Your task to perform on an android device: change notifications settings Image 0: 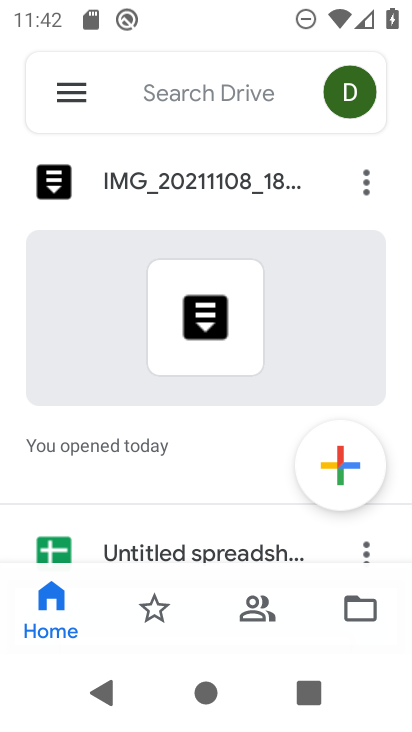
Step 0: press home button
Your task to perform on an android device: change notifications settings Image 1: 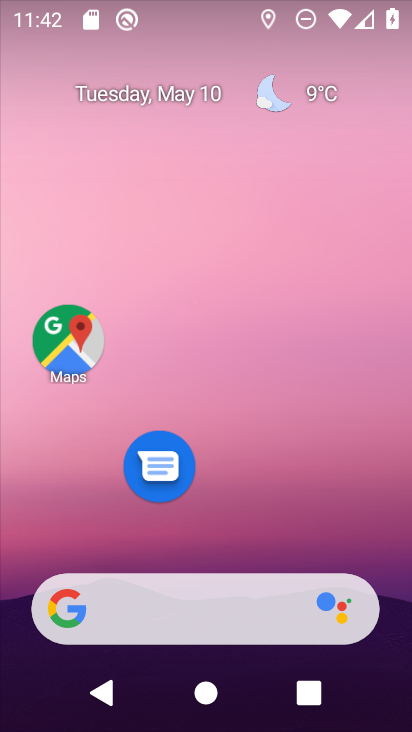
Step 1: drag from (250, 512) to (360, 74)
Your task to perform on an android device: change notifications settings Image 2: 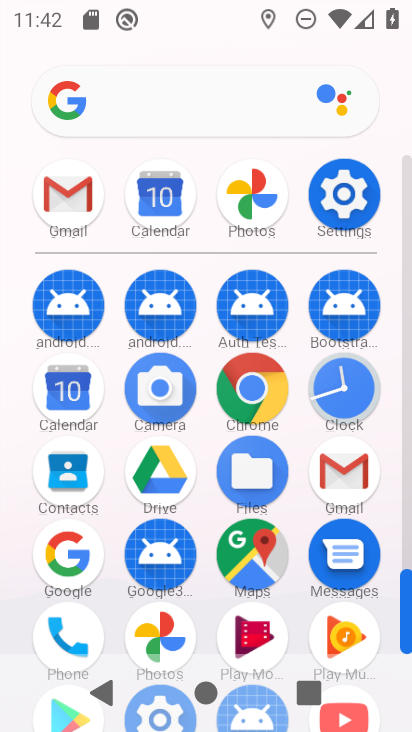
Step 2: click (354, 202)
Your task to perform on an android device: change notifications settings Image 3: 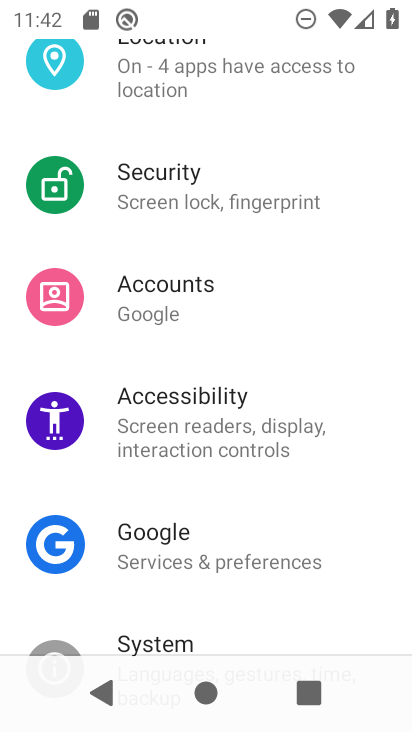
Step 3: drag from (253, 306) to (230, 450)
Your task to perform on an android device: change notifications settings Image 4: 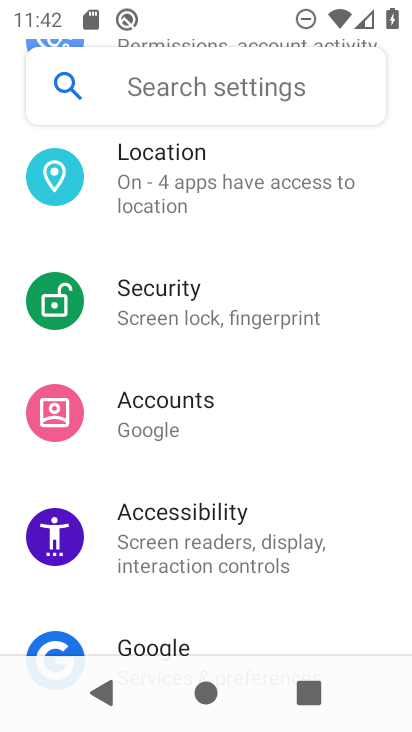
Step 4: drag from (197, 324) to (208, 406)
Your task to perform on an android device: change notifications settings Image 5: 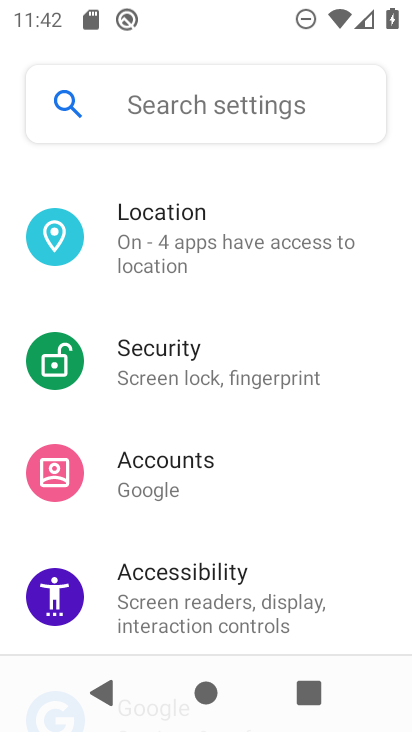
Step 5: drag from (194, 300) to (191, 392)
Your task to perform on an android device: change notifications settings Image 6: 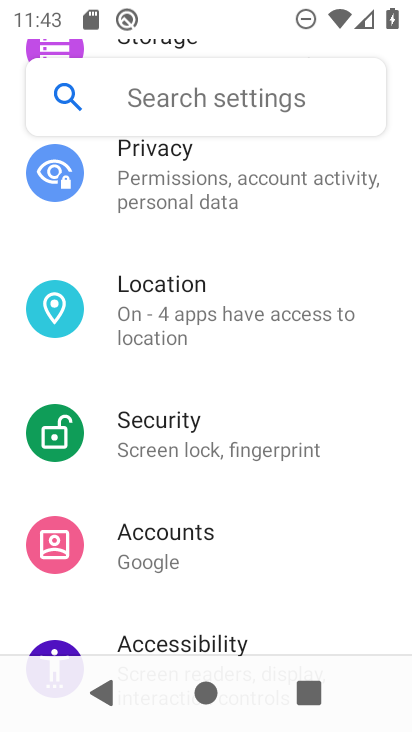
Step 6: drag from (176, 298) to (203, 378)
Your task to perform on an android device: change notifications settings Image 7: 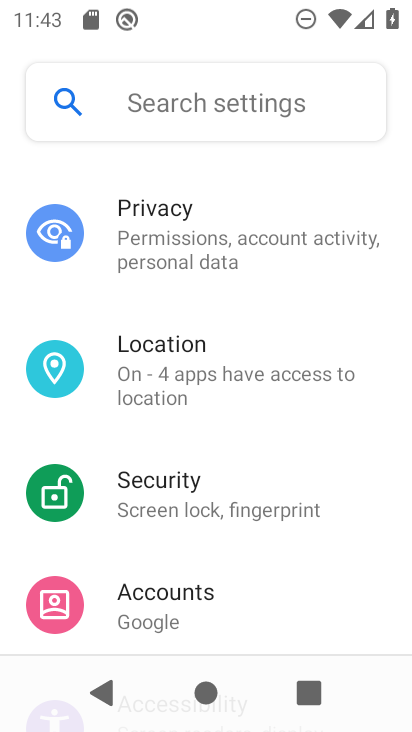
Step 7: drag from (190, 285) to (193, 374)
Your task to perform on an android device: change notifications settings Image 8: 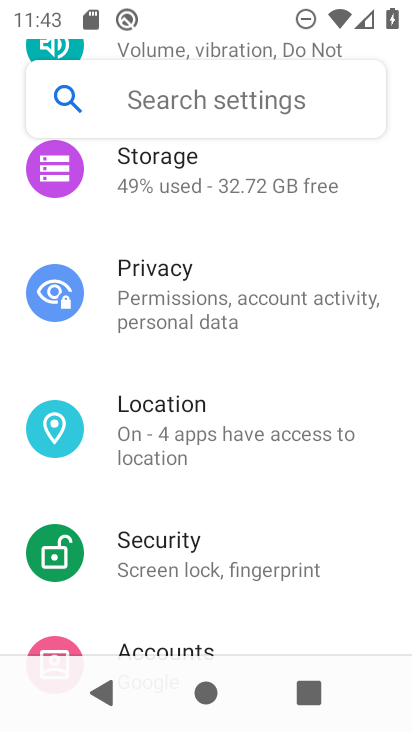
Step 8: drag from (163, 316) to (183, 442)
Your task to perform on an android device: change notifications settings Image 9: 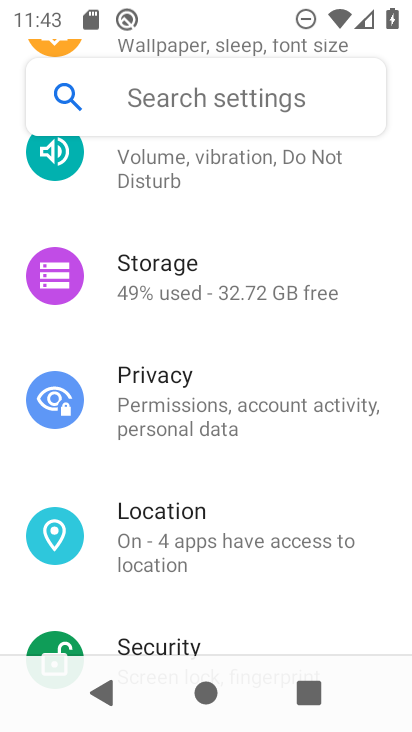
Step 9: drag from (152, 307) to (169, 422)
Your task to perform on an android device: change notifications settings Image 10: 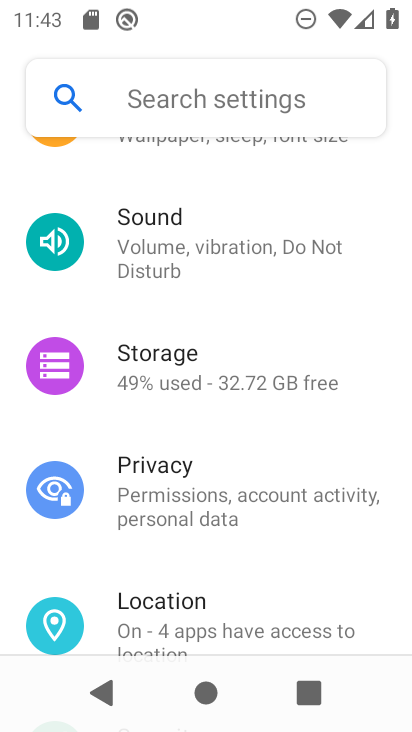
Step 10: drag from (145, 318) to (166, 394)
Your task to perform on an android device: change notifications settings Image 11: 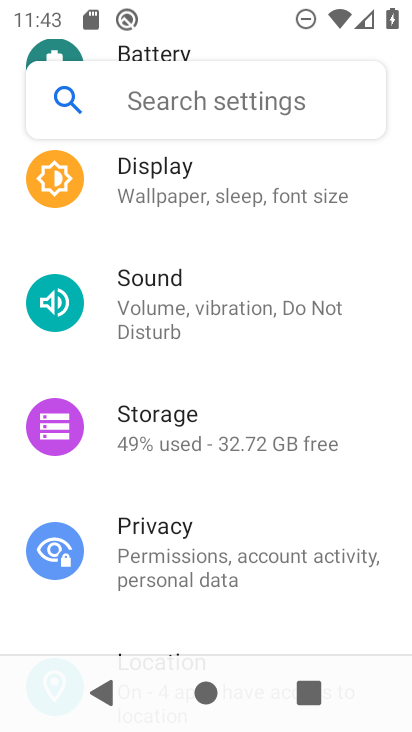
Step 11: drag from (151, 324) to (172, 429)
Your task to perform on an android device: change notifications settings Image 12: 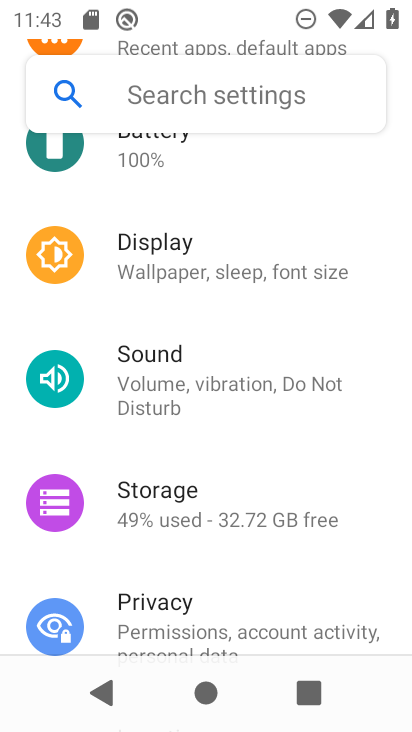
Step 12: drag from (165, 342) to (152, 466)
Your task to perform on an android device: change notifications settings Image 13: 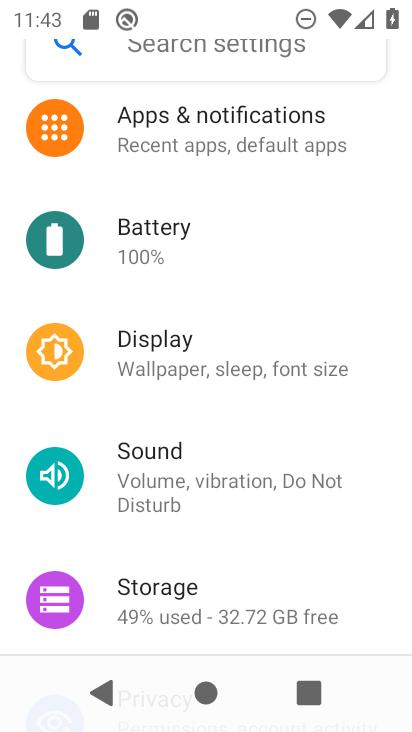
Step 13: click (228, 121)
Your task to perform on an android device: change notifications settings Image 14: 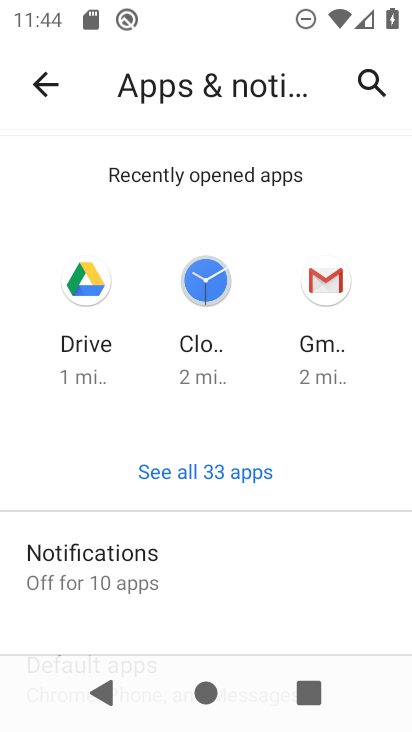
Step 14: drag from (229, 565) to (219, 304)
Your task to perform on an android device: change notifications settings Image 15: 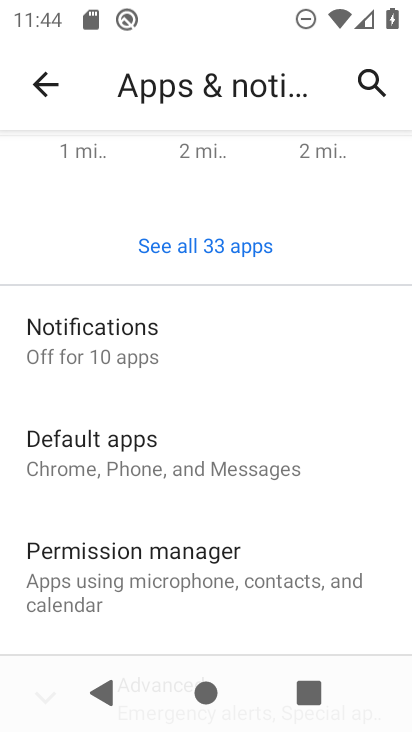
Step 15: click (138, 345)
Your task to perform on an android device: change notifications settings Image 16: 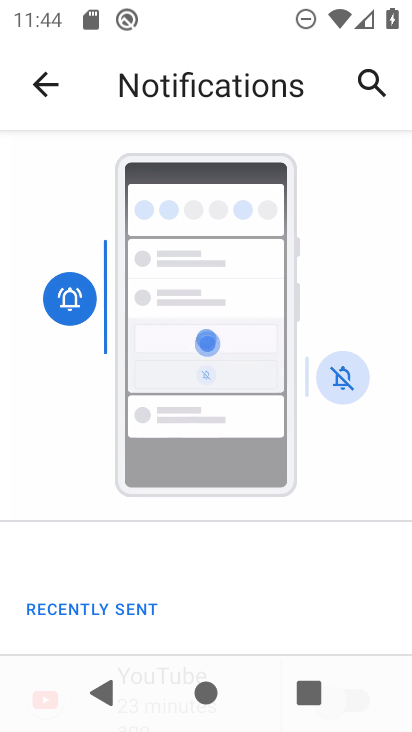
Step 16: drag from (120, 611) to (154, 204)
Your task to perform on an android device: change notifications settings Image 17: 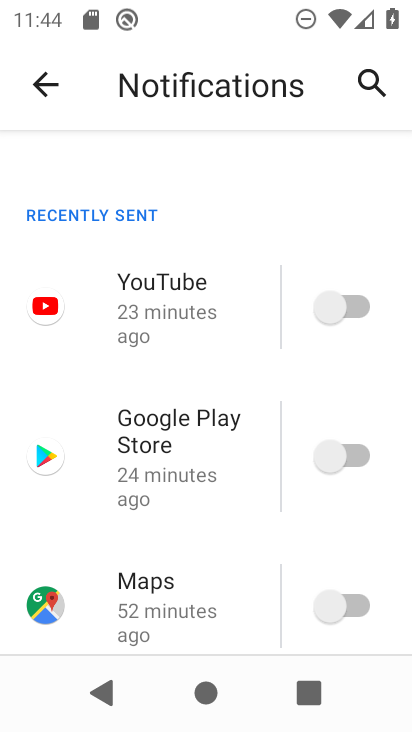
Step 17: drag from (134, 552) to (151, 263)
Your task to perform on an android device: change notifications settings Image 18: 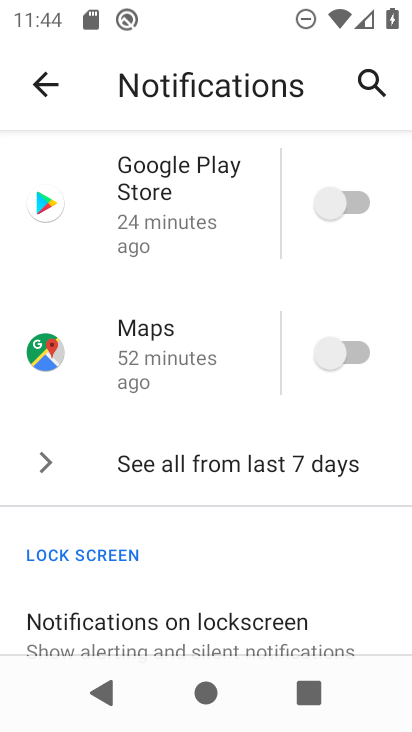
Step 18: click (216, 460)
Your task to perform on an android device: change notifications settings Image 19: 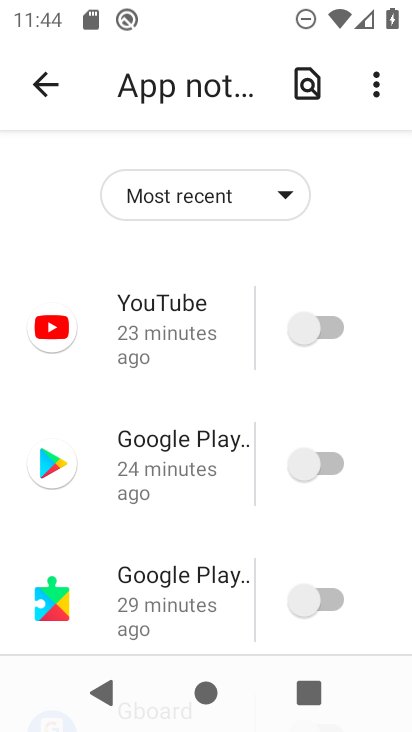
Step 19: click (308, 336)
Your task to perform on an android device: change notifications settings Image 20: 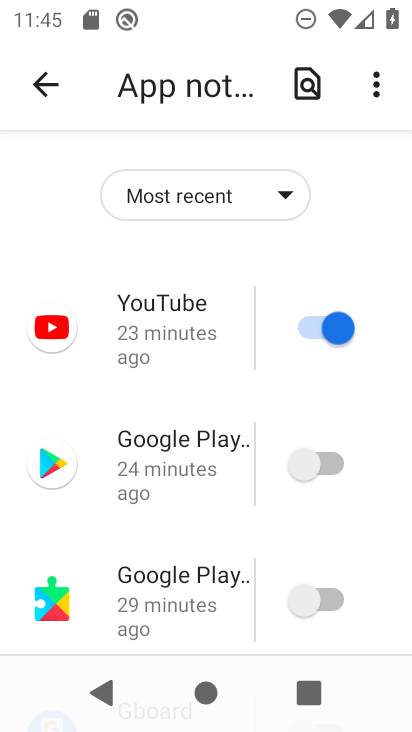
Step 20: click (294, 468)
Your task to perform on an android device: change notifications settings Image 21: 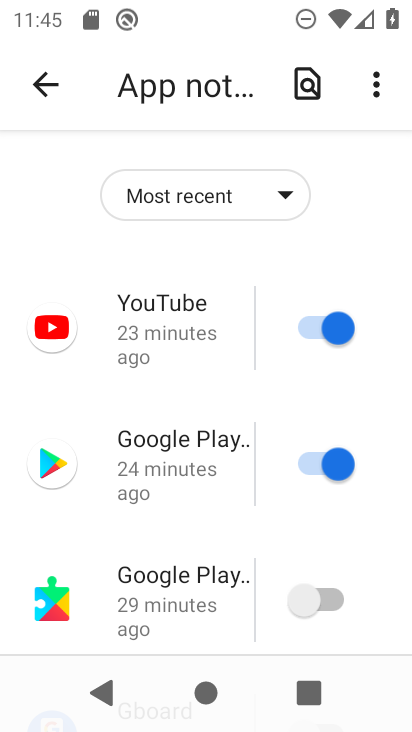
Step 21: click (302, 597)
Your task to perform on an android device: change notifications settings Image 22: 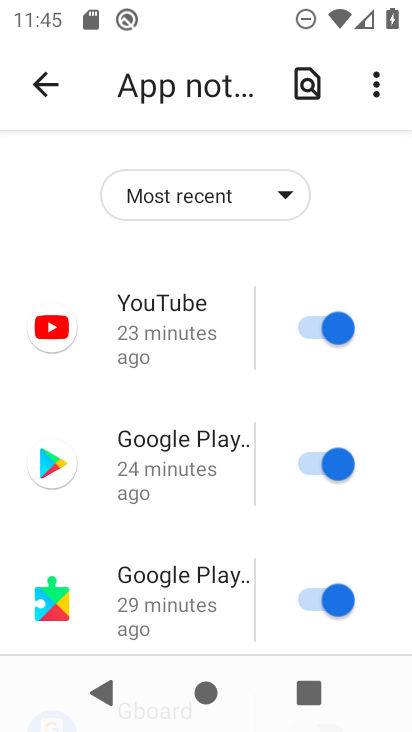
Step 22: drag from (190, 585) to (211, 102)
Your task to perform on an android device: change notifications settings Image 23: 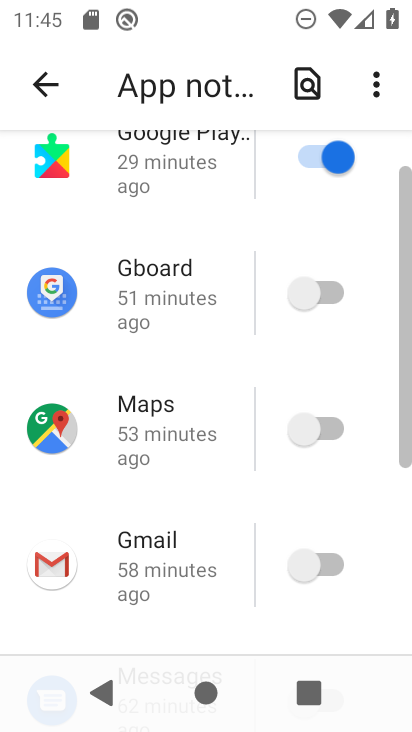
Step 23: click (317, 292)
Your task to perform on an android device: change notifications settings Image 24: 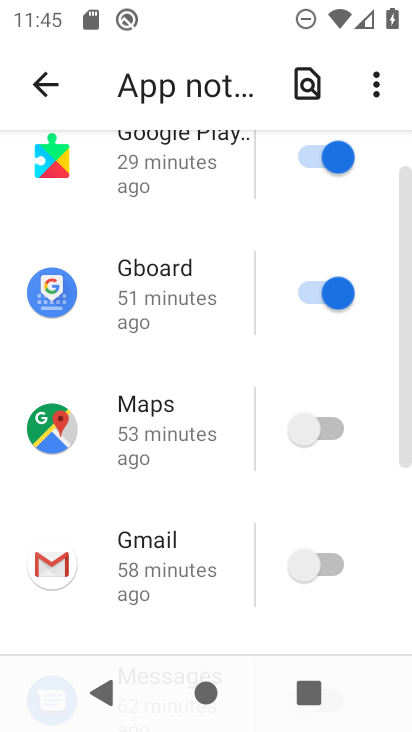
Step 24: click (328, 435)
Your task to perform on an android device: change notifications settings Image 25: 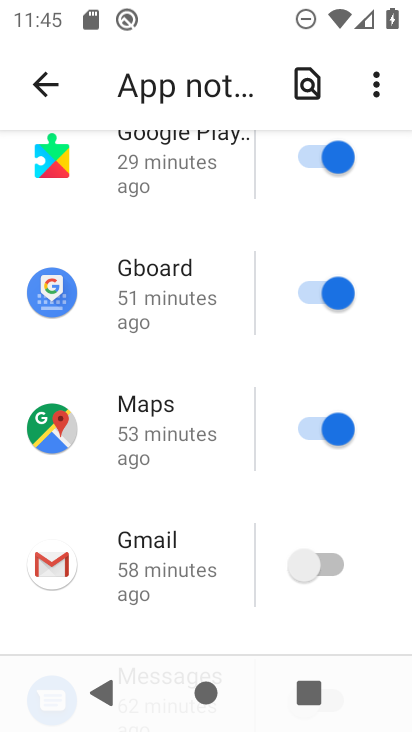
Step 25: click (305, 579)
Your task to perform on an android device: change notifications settings Image 26: 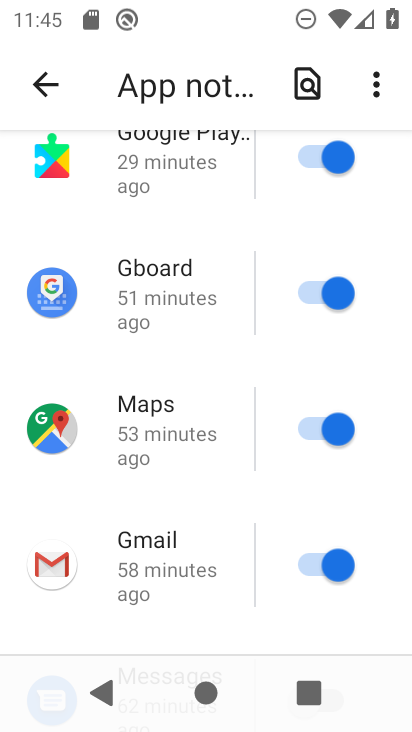
Step 26: drag from (162, 561) to (193, 192)
Your task to perform on an android device: change notifications settings Image 27: 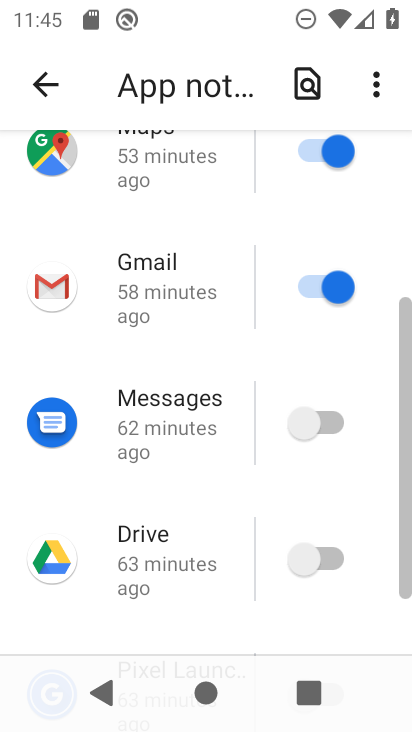
Step 27: click (308, 419)
Your task to perform on an android device: change notifications settings Image 28: 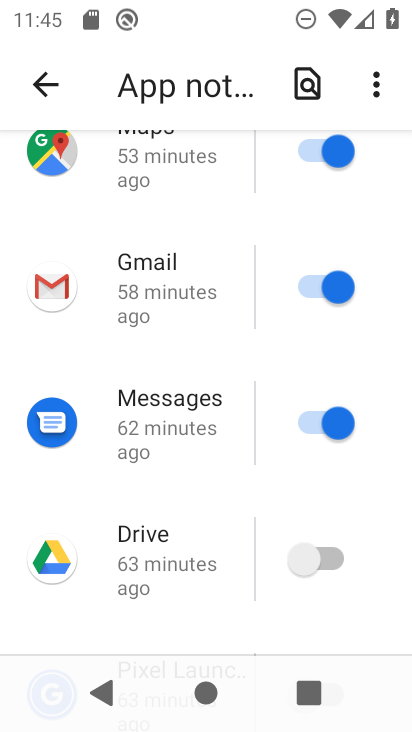
Step 28: click (310, 565)
Your task to perform on an android device: change notifications settings Image 29: 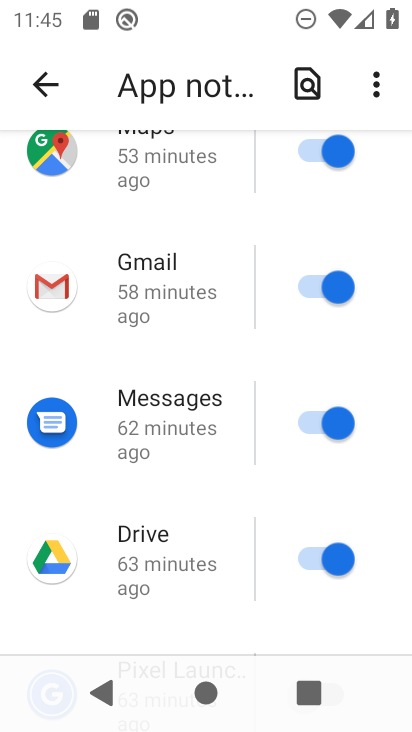
Step 29: drag from (170, 554) to (171, 186)
Your task to perform on an android device: change notifications settings Image 30: 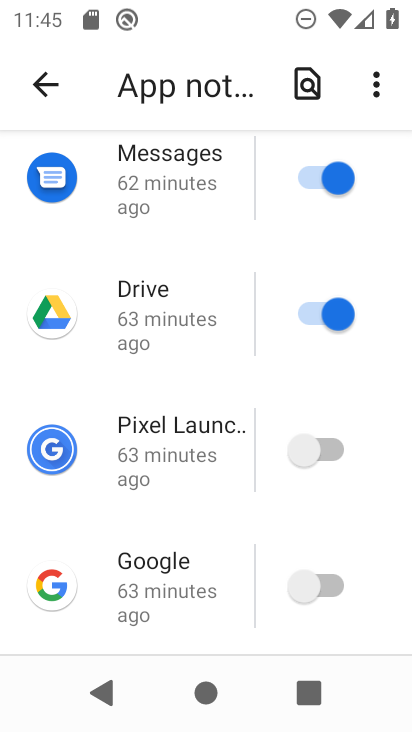
Step 30: click (290, 451)
Your task to perform on an android device: change notifications settings Image 31: 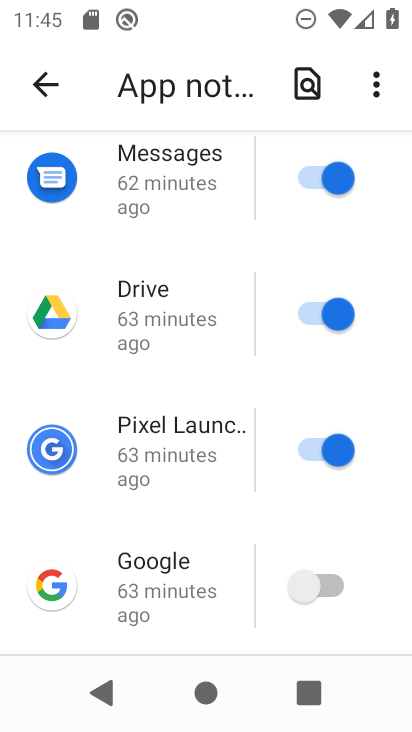
Step 31: click (334, 589)
Your task to perform on an android device: change notifications settings Image 32: 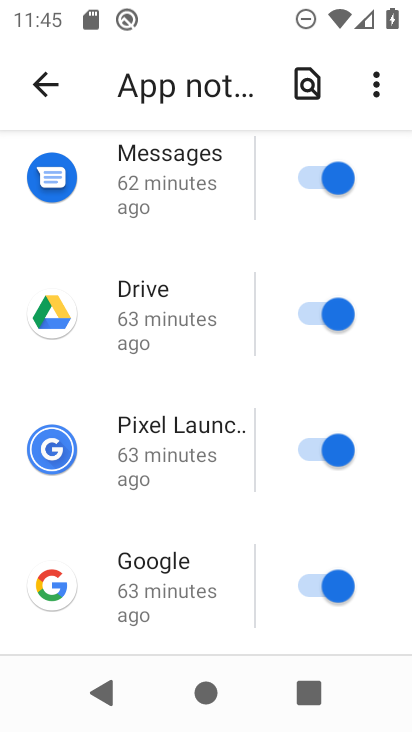
Step 32: drag from (209, 554) to (190, 216)
Your task to perform on an android device: change notifications settings Image 33: 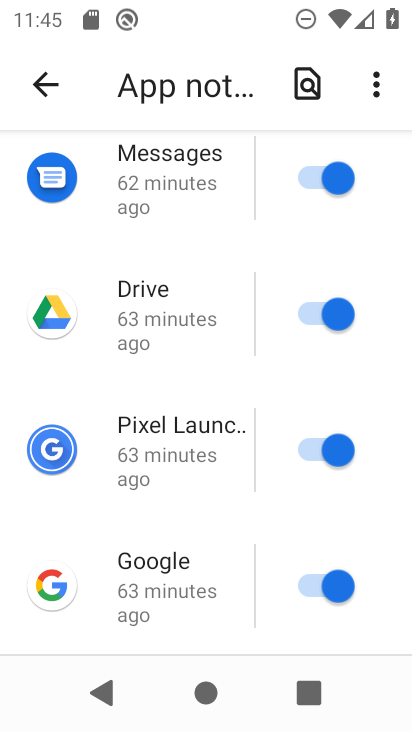
Step 33: click (38, 77)
Your task to perform on an android device: change notifications settings Image 34: 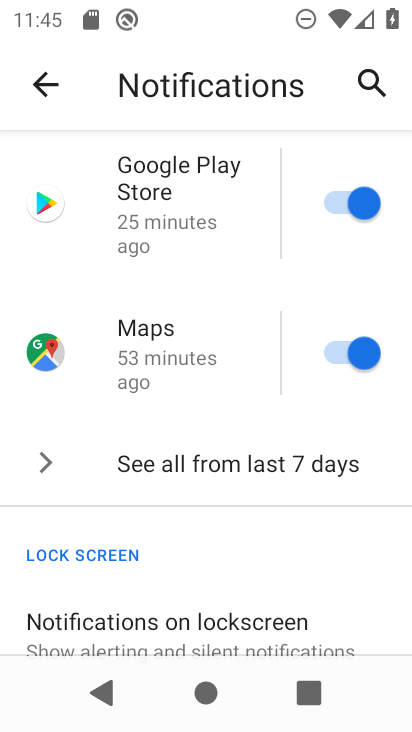
Step 34: drag from (176, 563) to (152, 273)
Your task to perform on an android device: change notifications settings Image 35: 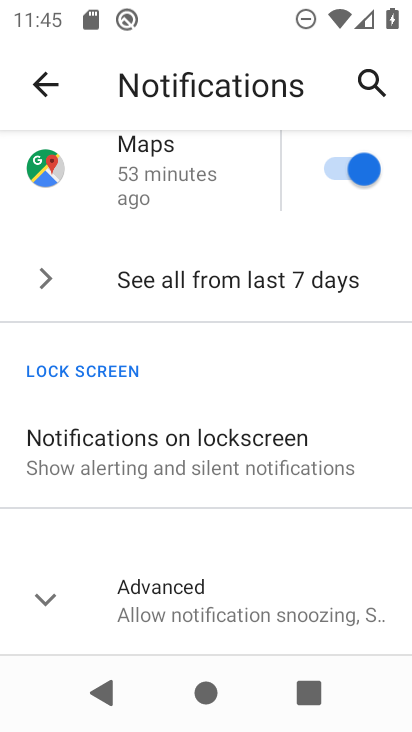
Step 35: click (163, 474)
Your task to perform on an android device: change notifications settings Image 36: 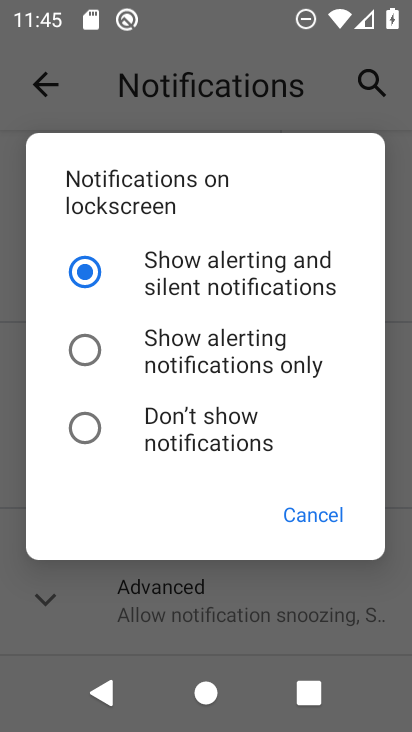
Step 36: click (182, 349)
Your task to perform on an android device: change notifications settings Image 37: 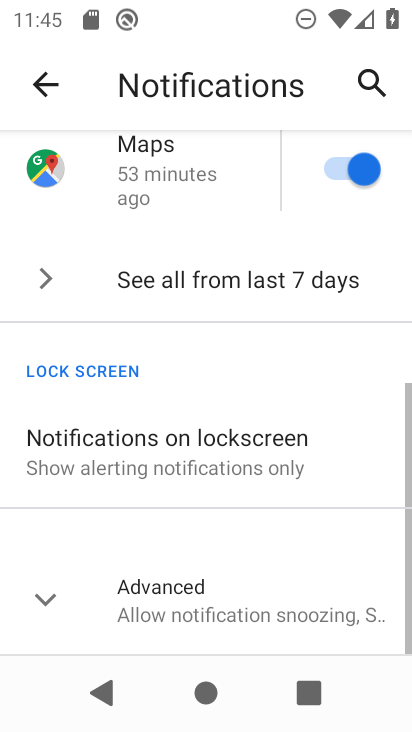
Step 37: click (220, 584)
Your task to perform on an android device: change notifications settings Image 38: 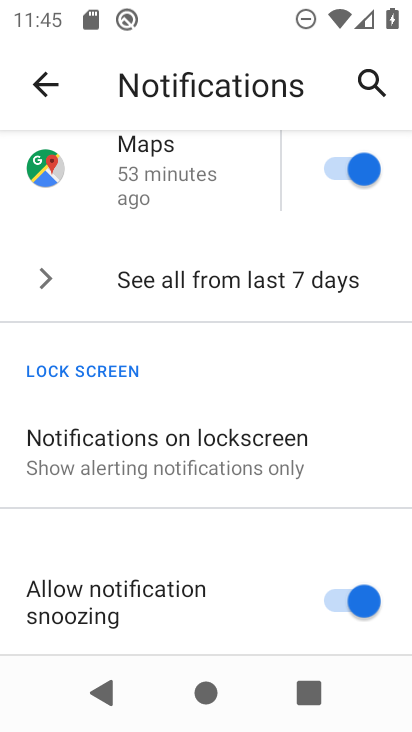
Step 38: drag from (219, 583) to (222, 69)
Your task to perform on an android device: change notifications settings Image 39: 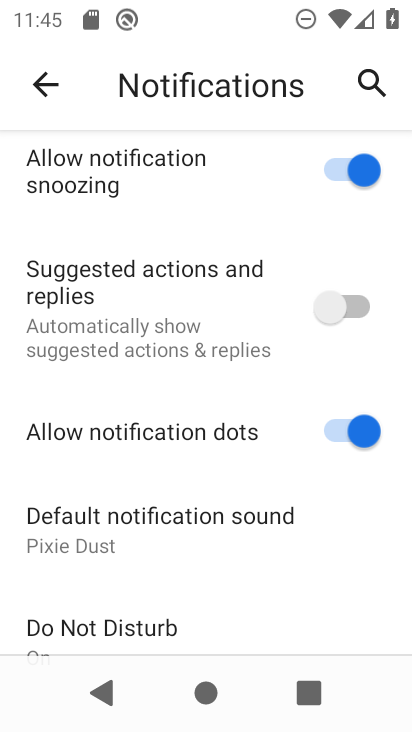
Step 39: click (331, 425)
Your task to perform on an android device: change notifications settings Image 40: 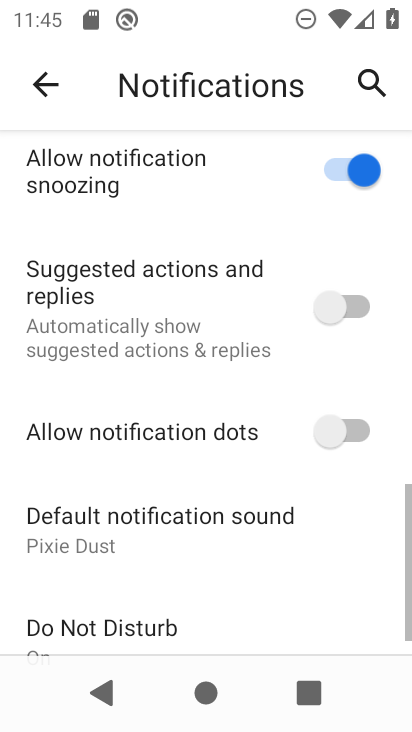
Step 40: click (349, 301)
Your task to perform on an android device: change notifications settings Image 41: 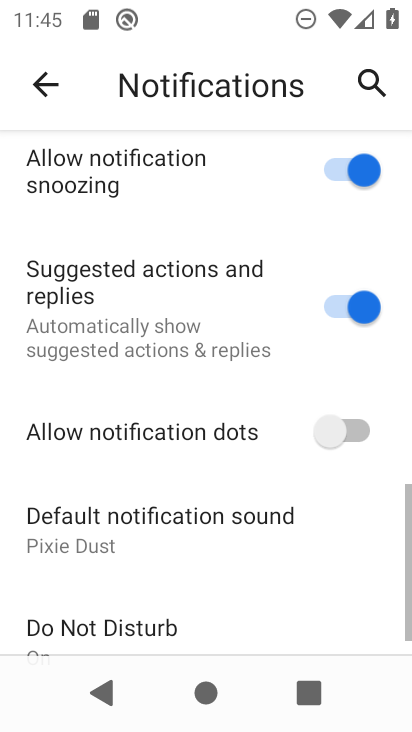
Step 41: click (331, 165)
Your task to perform on an android device: change notifications settings Image 42: 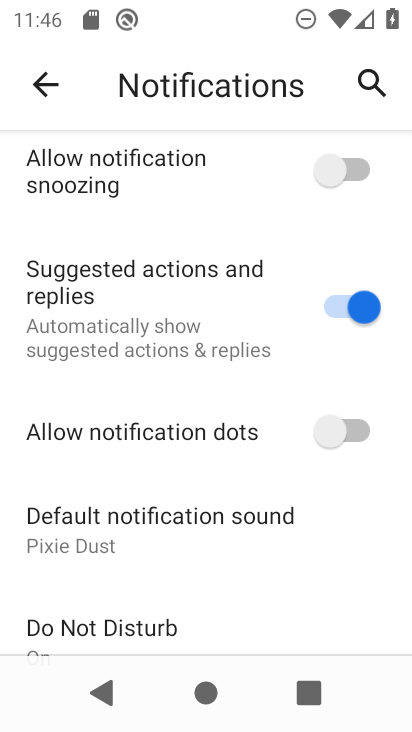
Step 42: task complete